Your task to perform on an android device: Go to Amazon Image 0: 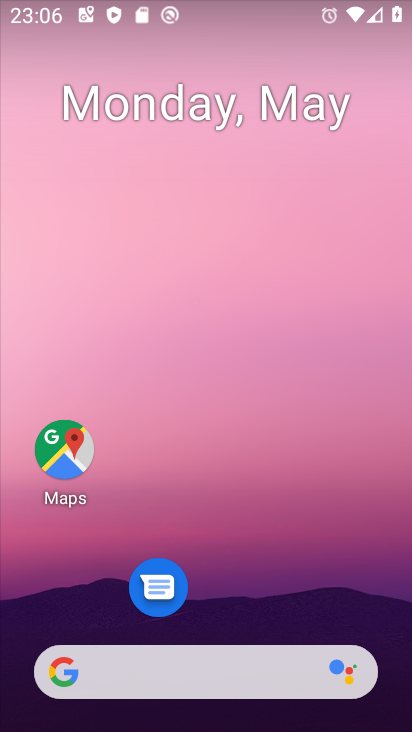
Step 0: drag from (217, 640) to (207, 37)
Your task to perform on an android device: Go to Amazon Image 1: 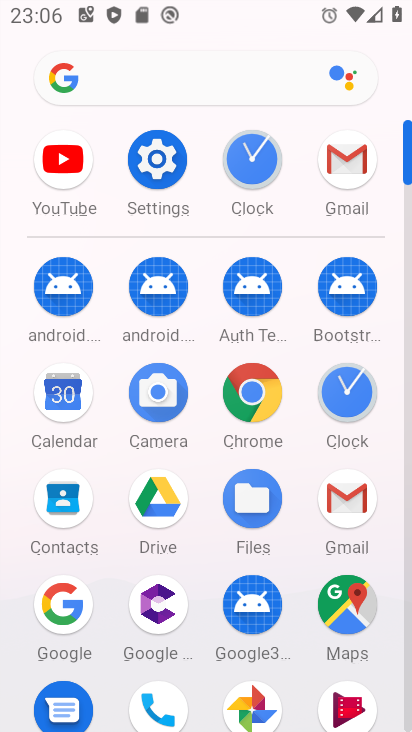
Step 1: click (261, 428)
Your task to perform on an android device: Go to Amazon Image 2: 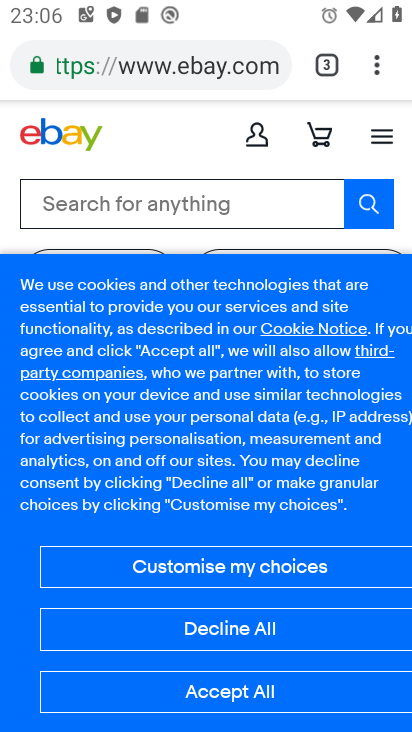
Step 2: click (330, 58)
Your task to perform on an android device: Go to Amazon Image 3: 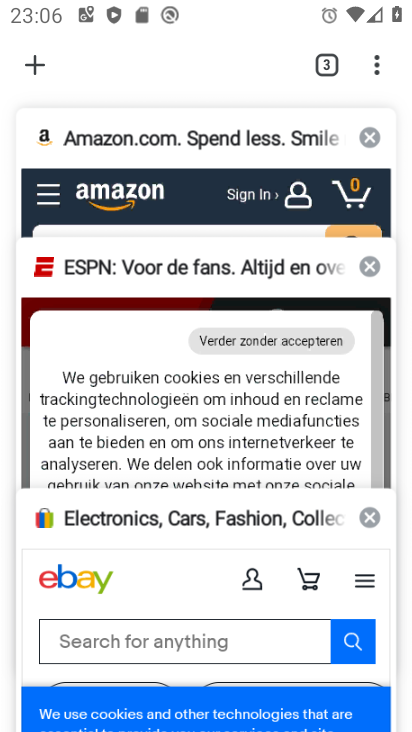
Step 3: click (91, 145)
Your task to perform on an android device: Go to Amazon Image 4: 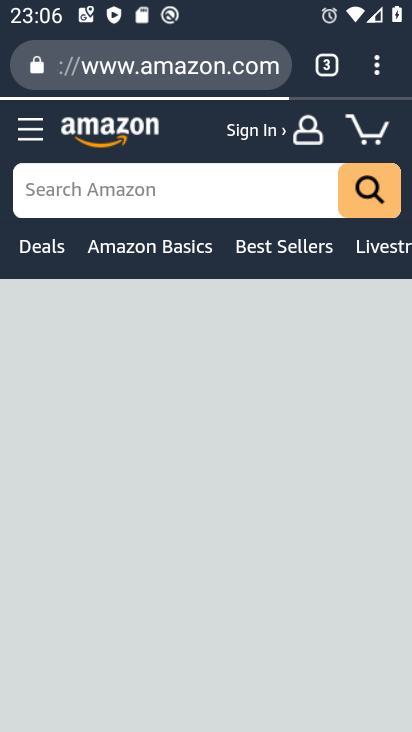
Step 4: task complete